Your task to perform on an android device: turn on improve location accuracy Image 0: 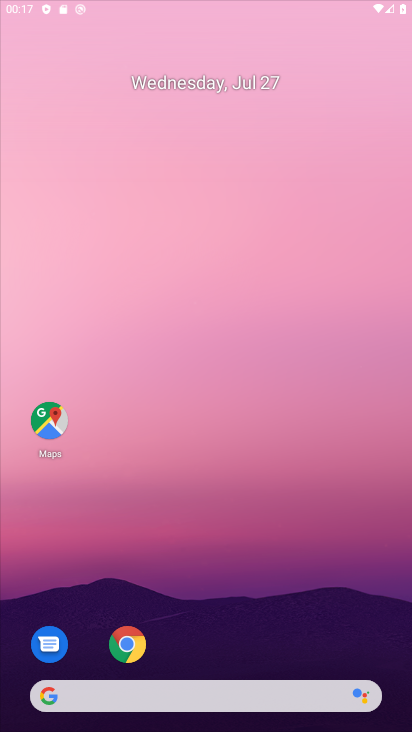
Step 0: press back button
Your task to perform on an android device: turn on improve location accuracy Image 1: 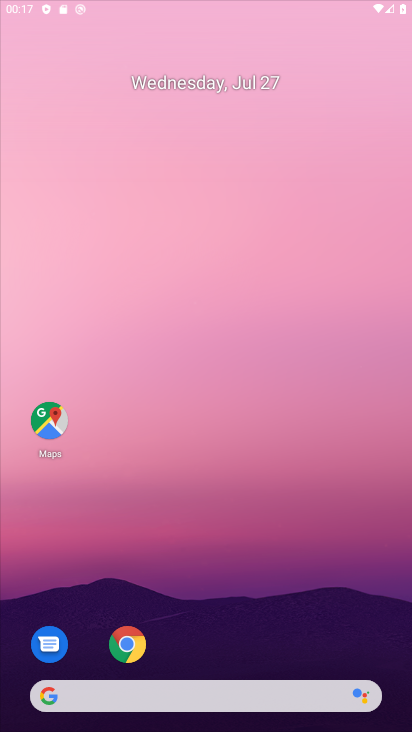
Step 1: press home button
Your task to perform on an android device: turn on improve location accuracy Image 2: 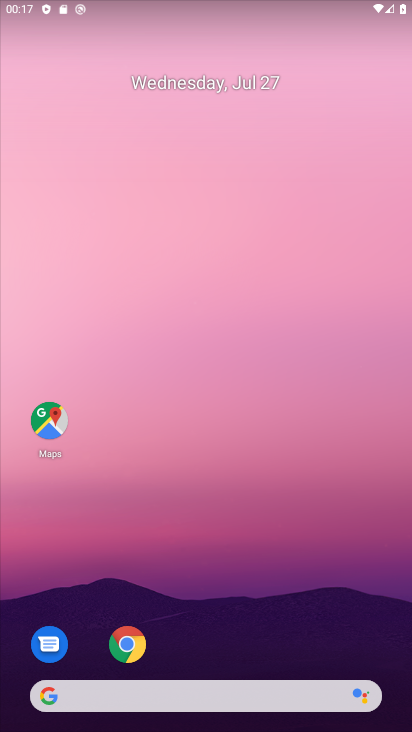
Step 2: drag from (208, 151) to (242, 18)
Your task to perform on an android device: turn on improve location accuracy Image 3: 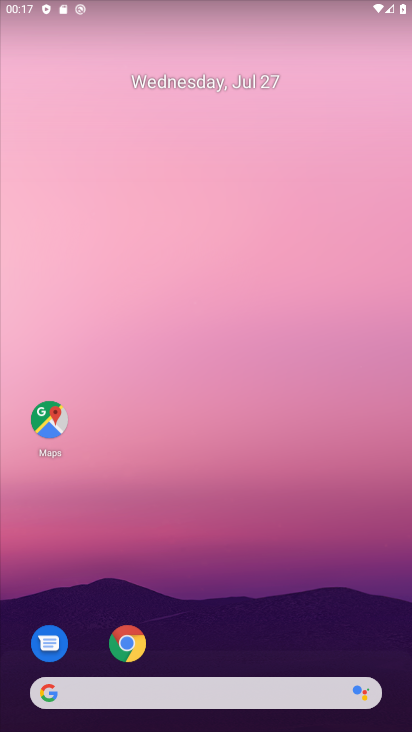
Step 3: click (232, 84)
Your task to perform on an android device: turn on improve location accuracy Image 4: 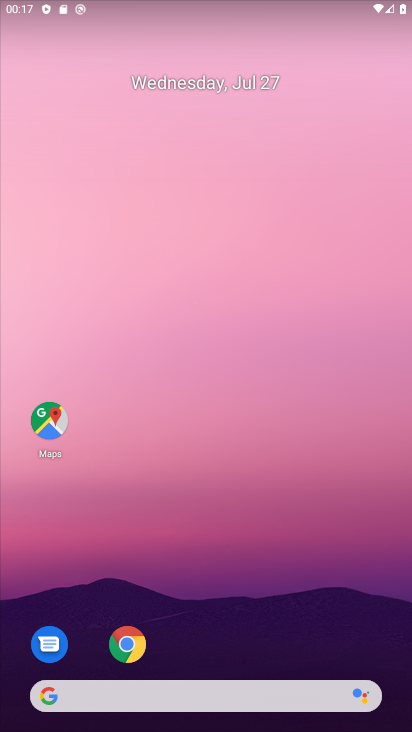
Step 4: drag from (275, 581) to (192, 69)
Your task to perform on an android device: turn on improve location accuracy Image 5: 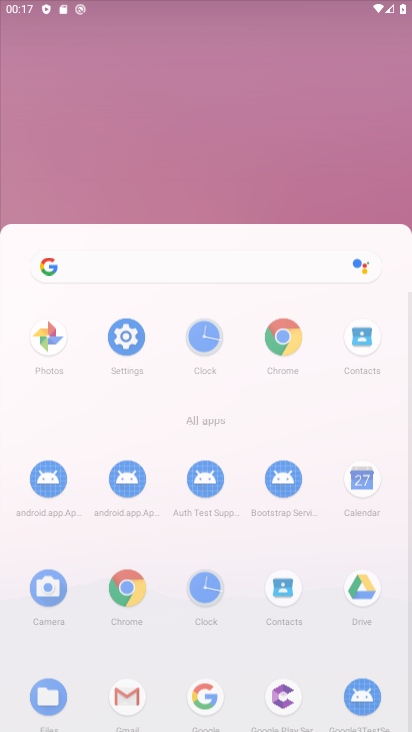
Step 5: drag from (191, 628) to (162, 168)
Your task to perform on an android device: turn on improve location accuracy Image 6: 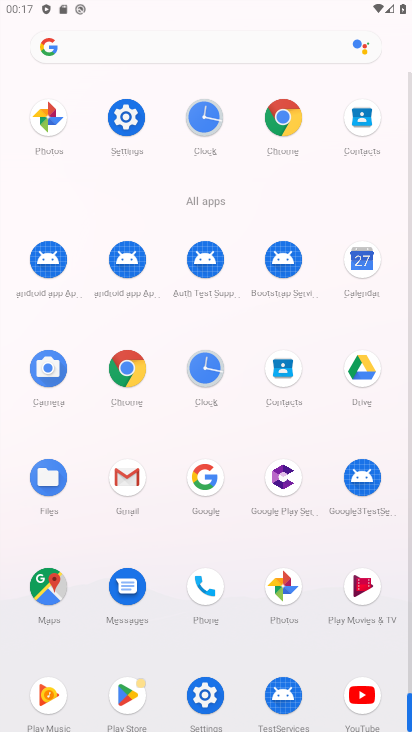
Step 6: click (184, 254)
Your task to perform on an android device: turn on improve location accuracy Image 7: 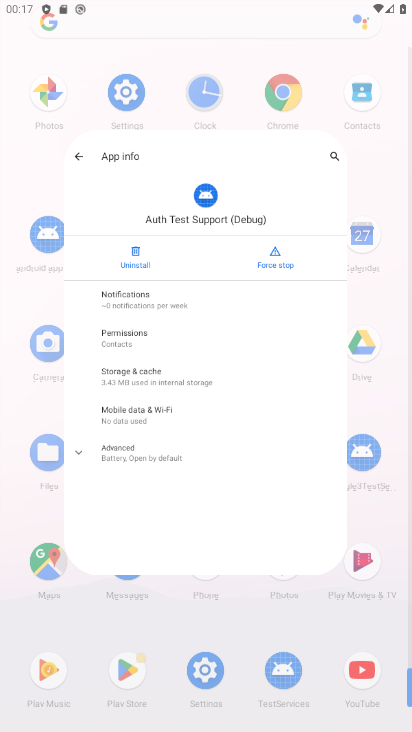
Step 7: click (371, 120)
Your task to perform on an android device: turn on improve location accuracy Image 8: 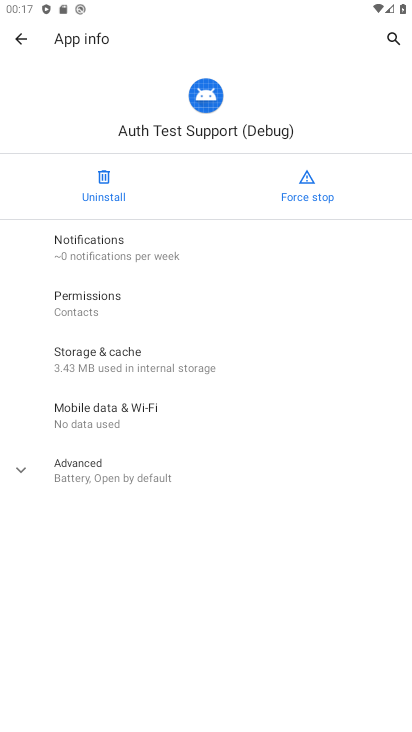
Step 8: click (17, 43)
Your task to perform on an android device: turn on improve location accuracy Image 9: 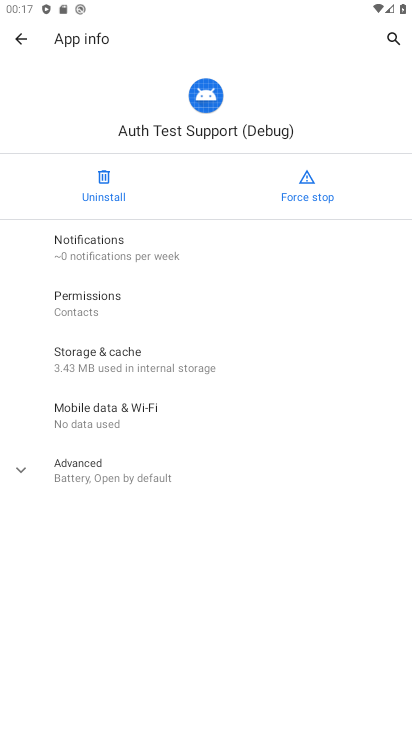
Step 9: click (17, 42)
Your task to perform on an android device: turn on improve location accuracy Image 10: 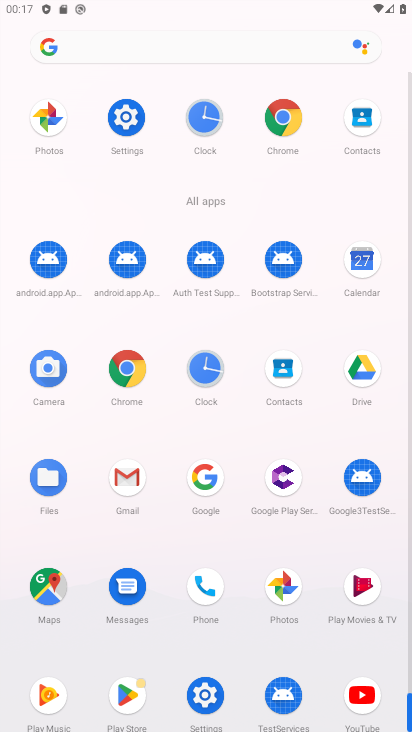
Step 10: click (127, 118)
Your task to perform on an android device: turn on improve location accuracy Image 11: 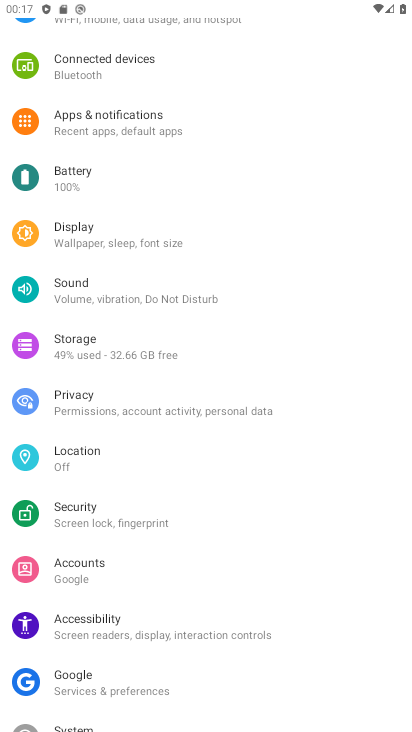
Step 11: click (71, 453)
Your task to perform on an android device: turn on improve location accuracy Image 12: 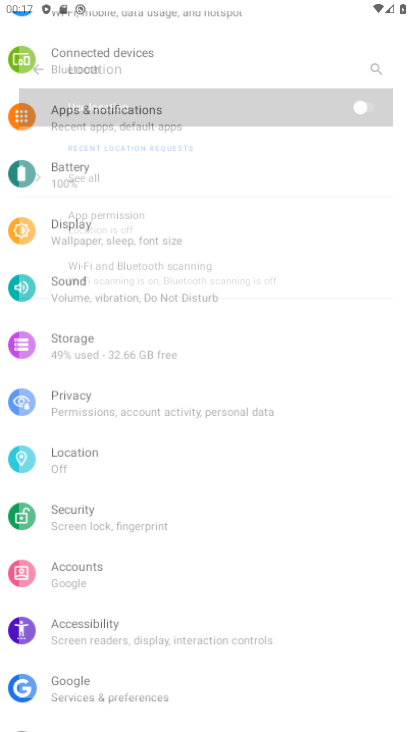
Step 12: click (74, 456)
Your task to perform on an android device: turn on improve location accuracy Image 13: 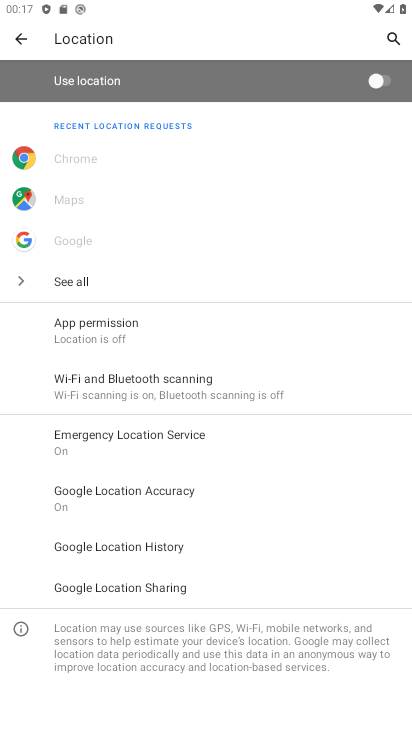
Step 13: click (120, 489)
Your task to perform on an android device: turn on improve location accuracy Image 14: 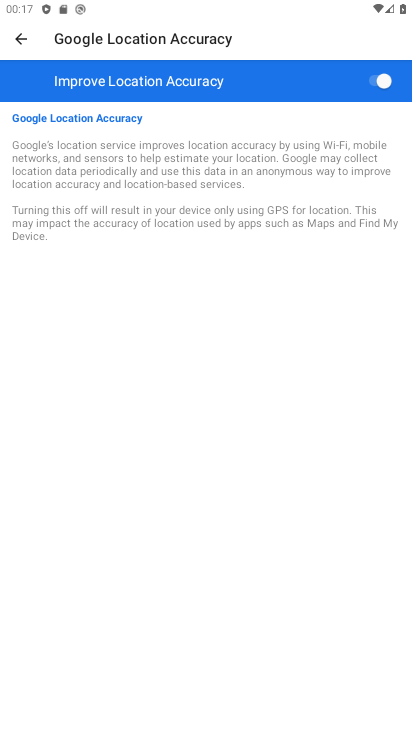
Step 14: task complete